Your task to perform on an android device: Is it going to rain today? Image 0: 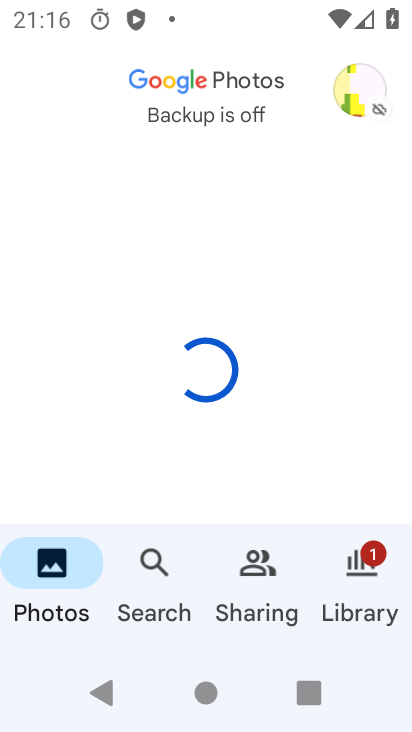
Step 0: press home button
Your task to perform on an android device: Is it going to rain today? Image 1: 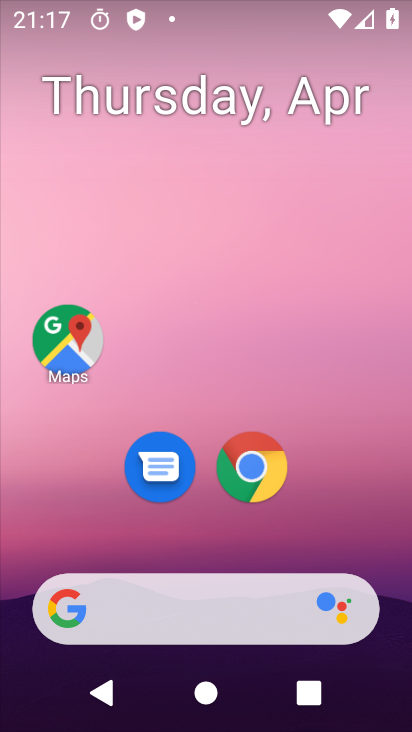
Step 1: click (210, 620)
Your task to perform on an android device: Is it going to rain today? Image 2: 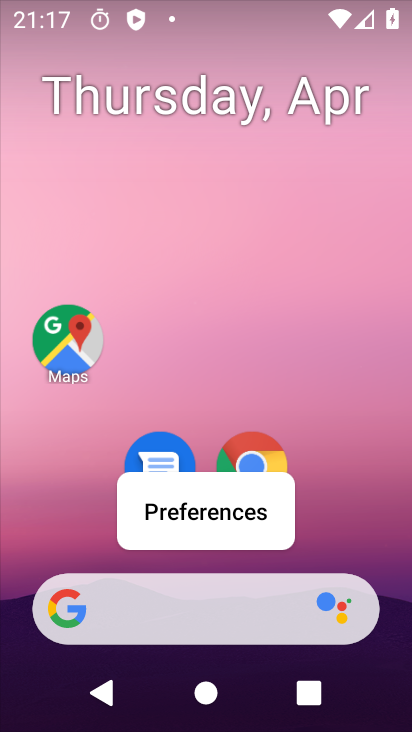
Step 2: click (171, 618)
Your task to perform on an android device: Is it going to rain today? Image 3: 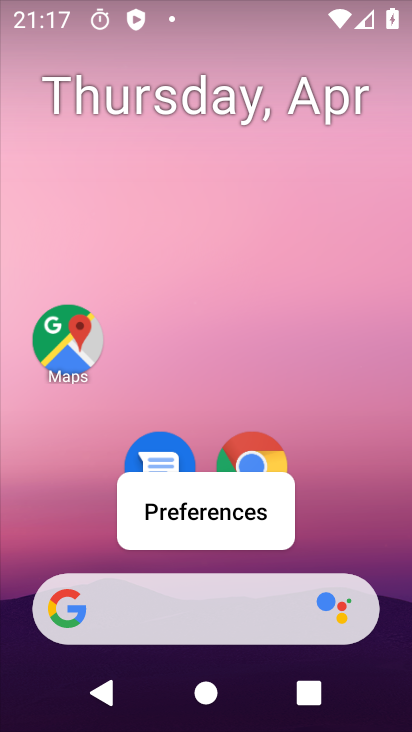
Step 3: click (171, 617)
Your task to perform on an android device: Is it going to rain today? Image 4: 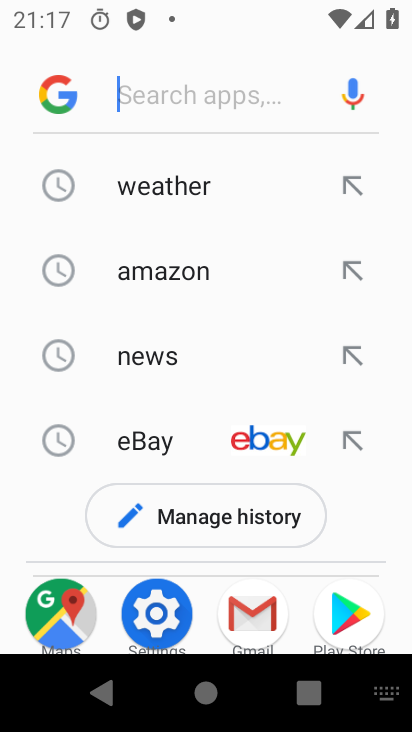
Step 4: click (152, 180)
Your task to perform on an android device: Is it going to rain today? Image 5: 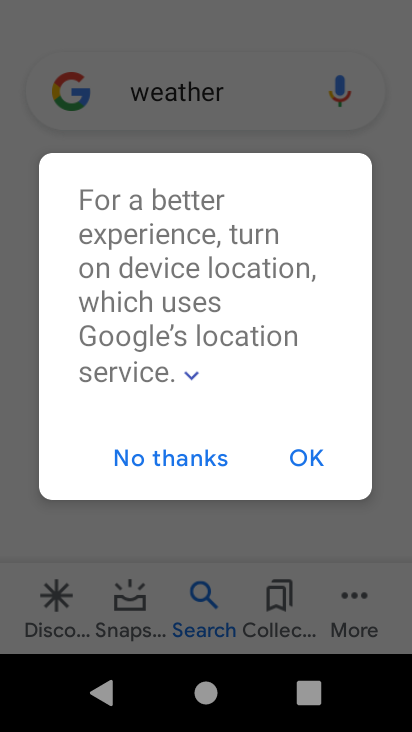
Step 5: click (293, 457)
Your task to perform on an android device: Is it going to rain today? Image 6: 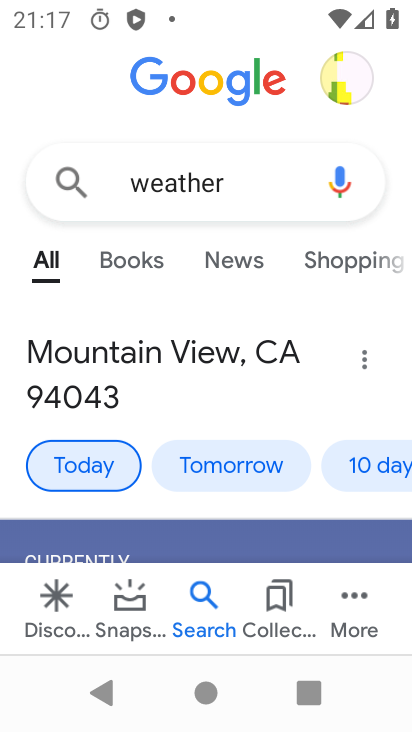
Step 6: task complete